Your task to perform on an android device: install app "McDonald's" Image 0: 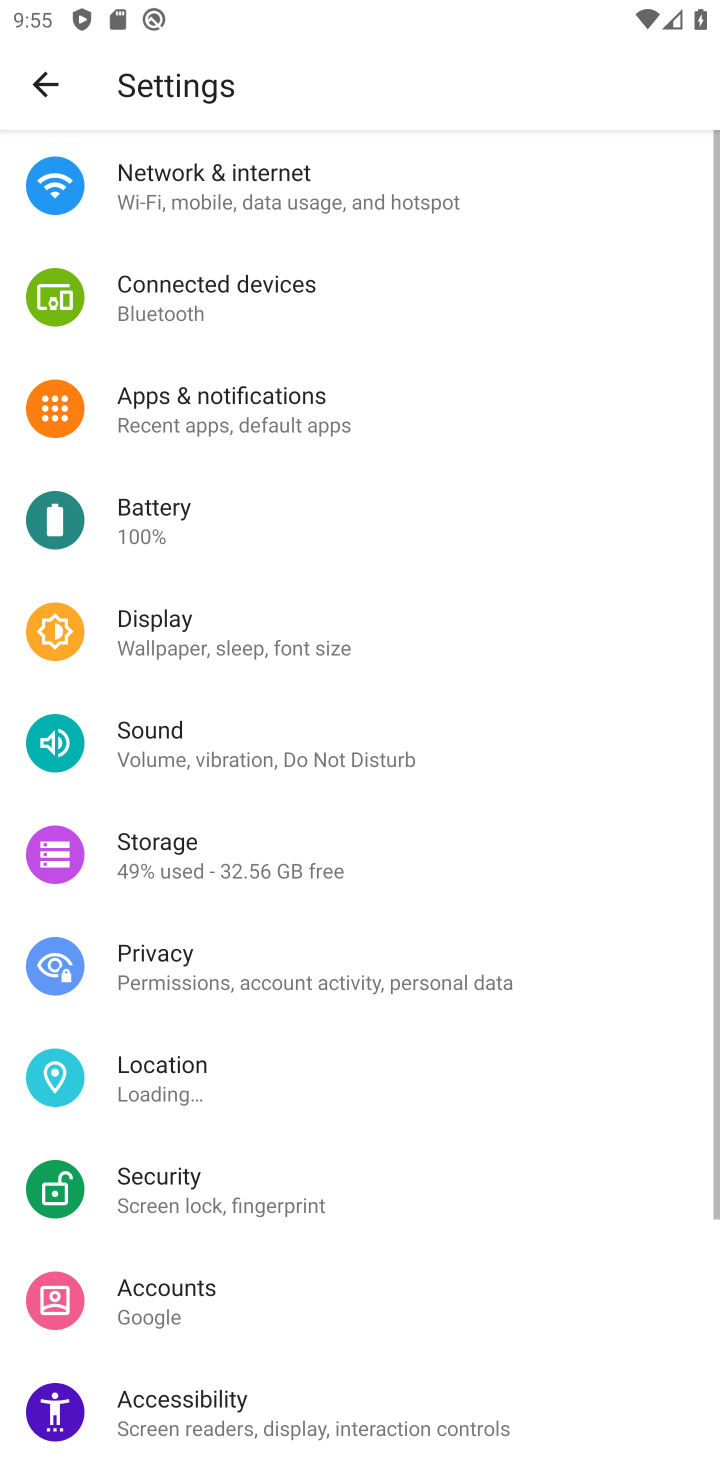
Step 0: press home button
Your task to perform on an android device: install app "McDonald's" Image 1: 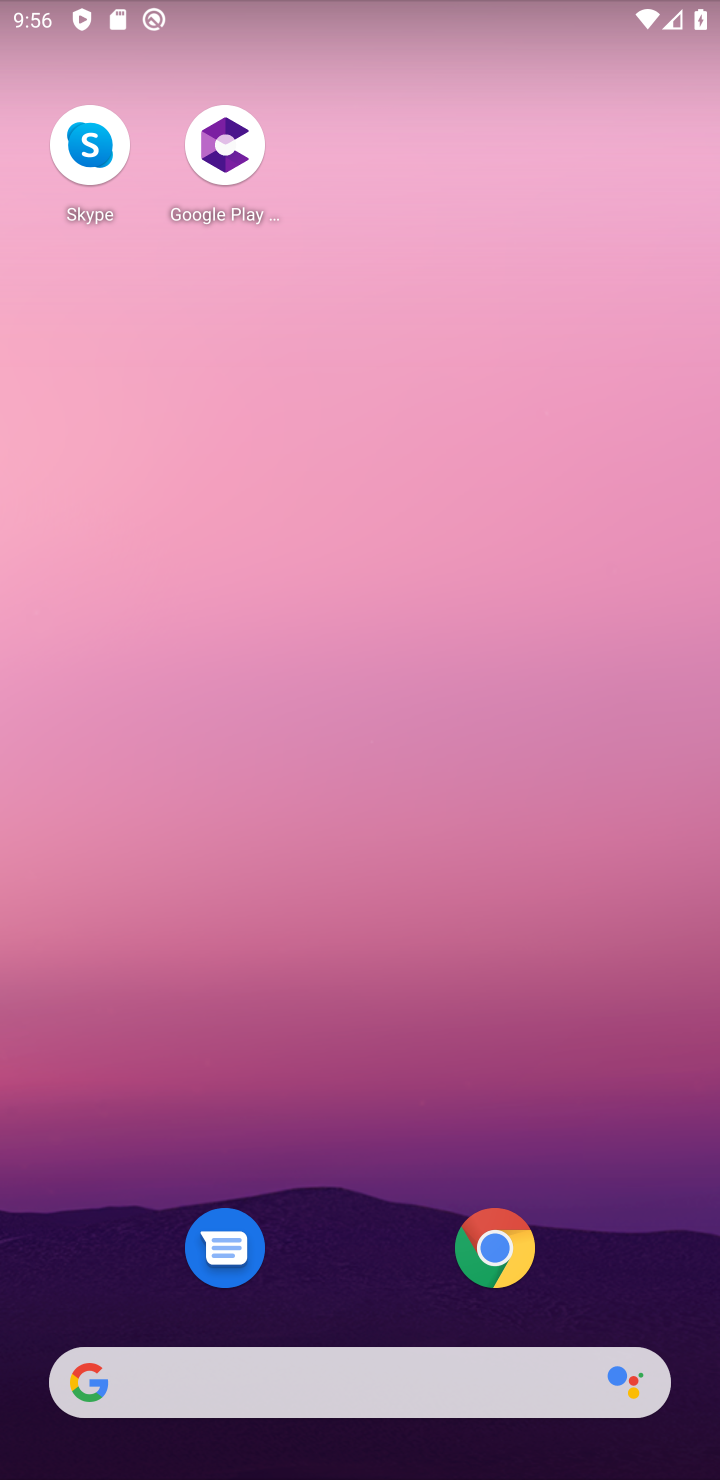
Step 1: drag from (370, 1053) to (562, 13)
Your task to perform on an android device: install app "McDonald's" Image 2: 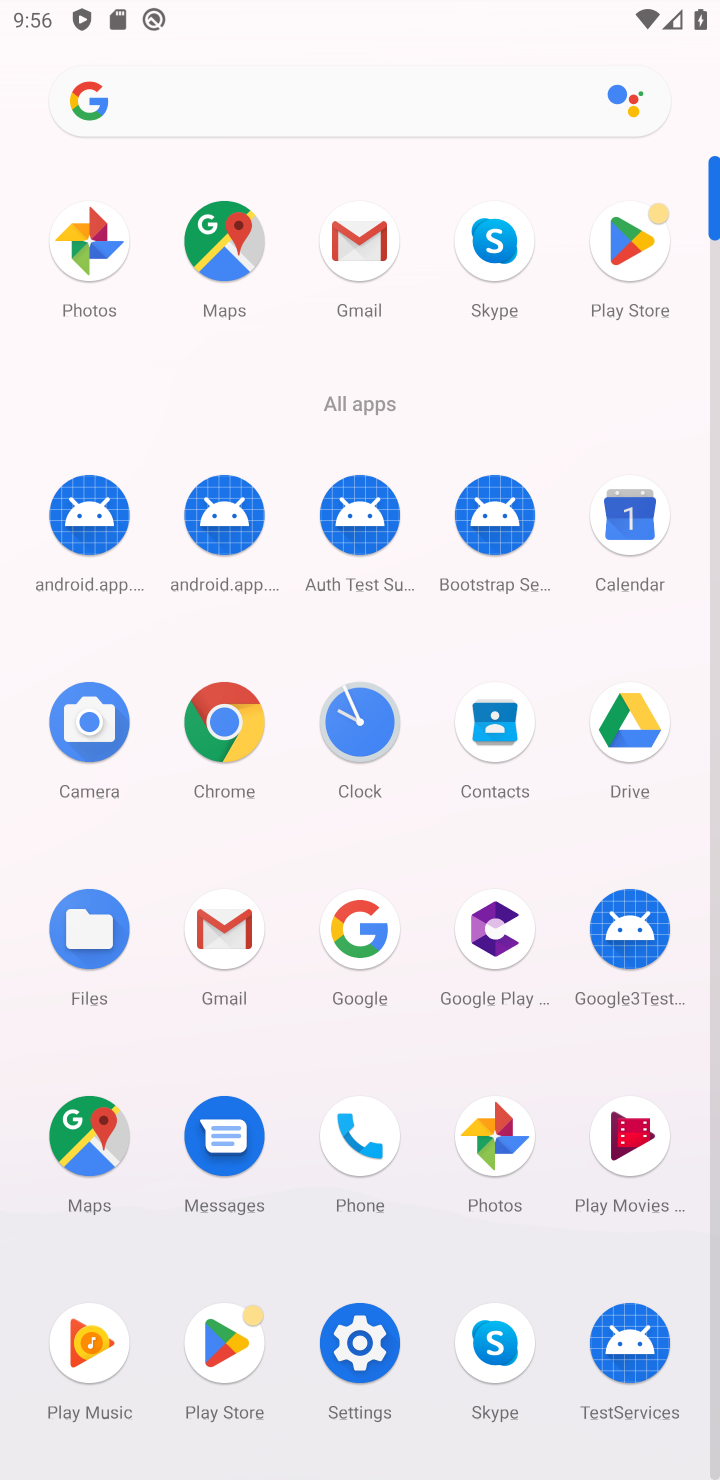
Step 2: click (622, 264)
Your task to perform on an android device: install app "McDonald's" Image 3: 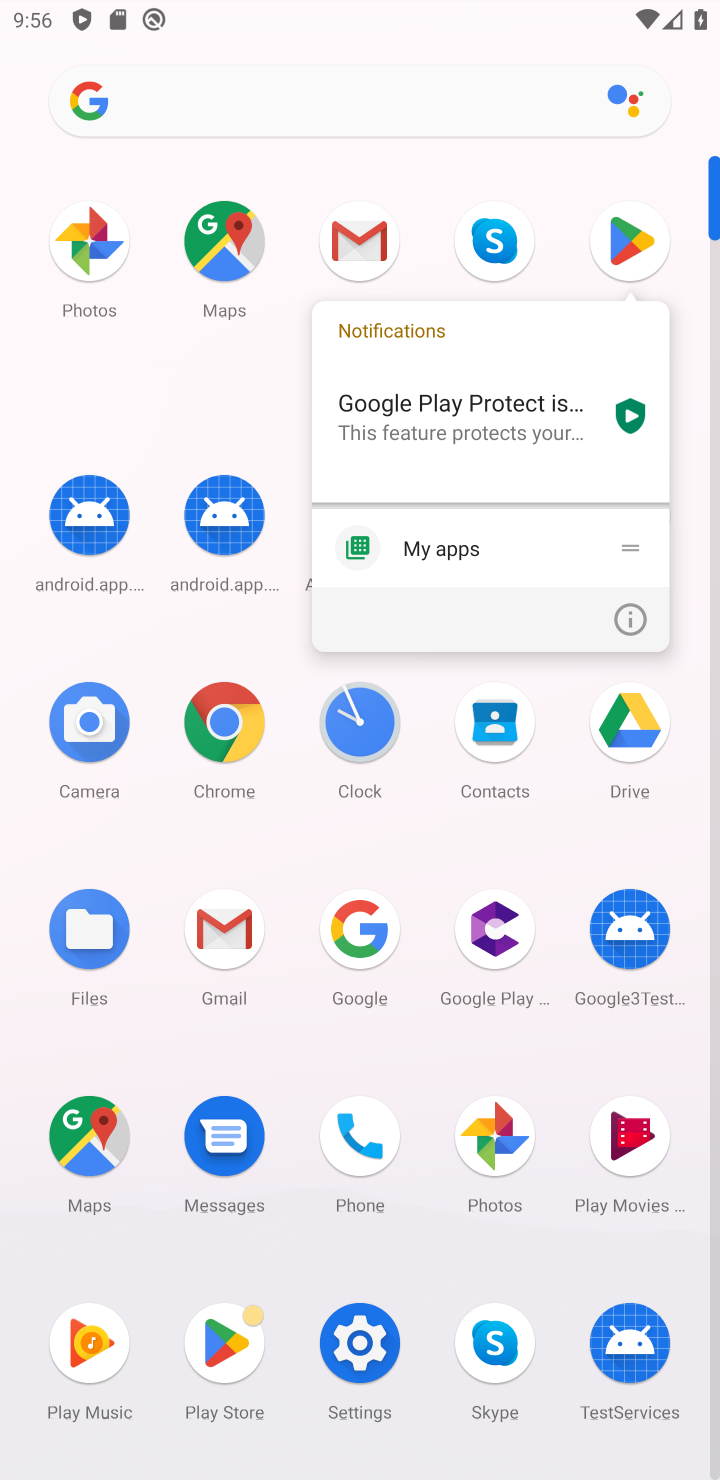
Step 3: click (241, 1347)
Your task to perform on an android device: install app "McDonald's" Image 4: 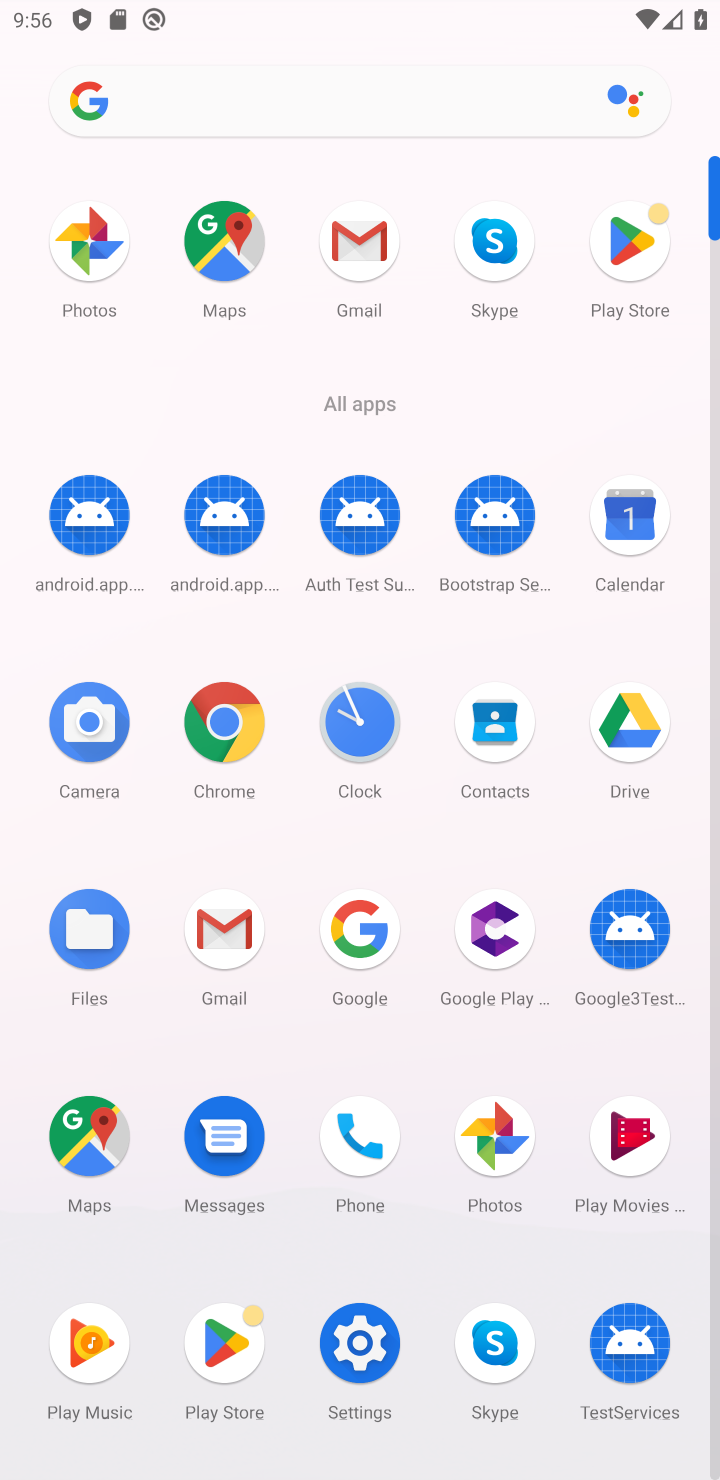
Step 4: click (198, 1326)
Your task to perform on an android device: install app "McDonald's" Image 5: 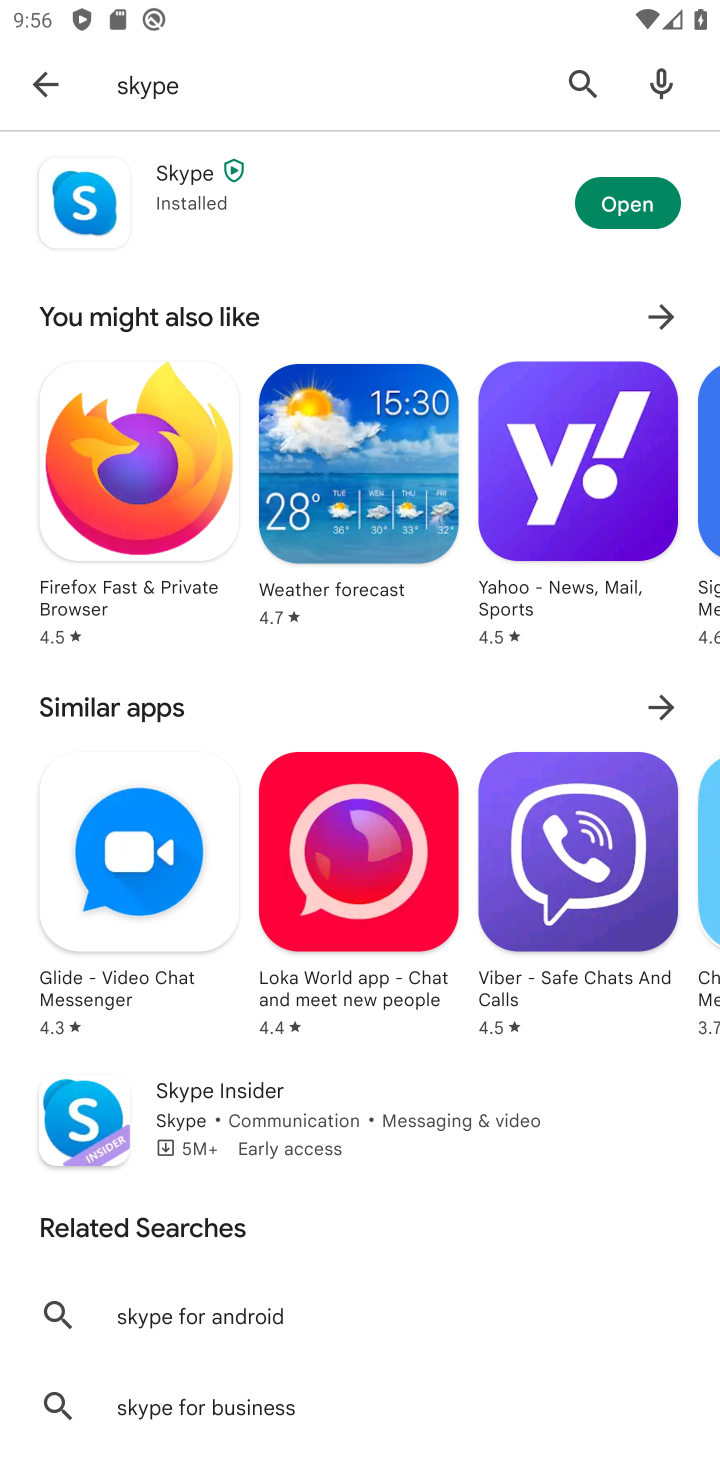
Step 5: click (383, 129)
Your task to perform on an android device: install app "McDonald's" Image 6: 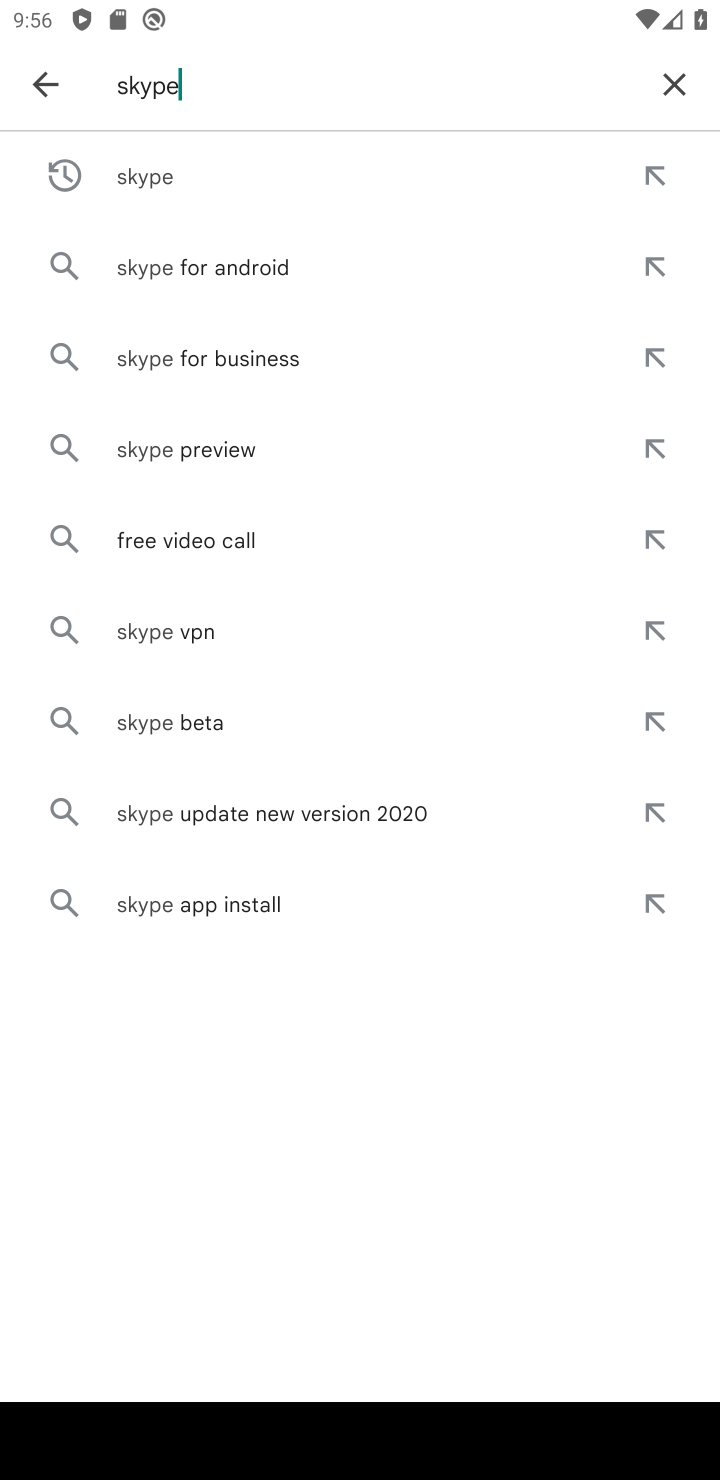
Step 6: click (664, 60)
Your task to perform on an android device: install app "McDonald's" Image 7: 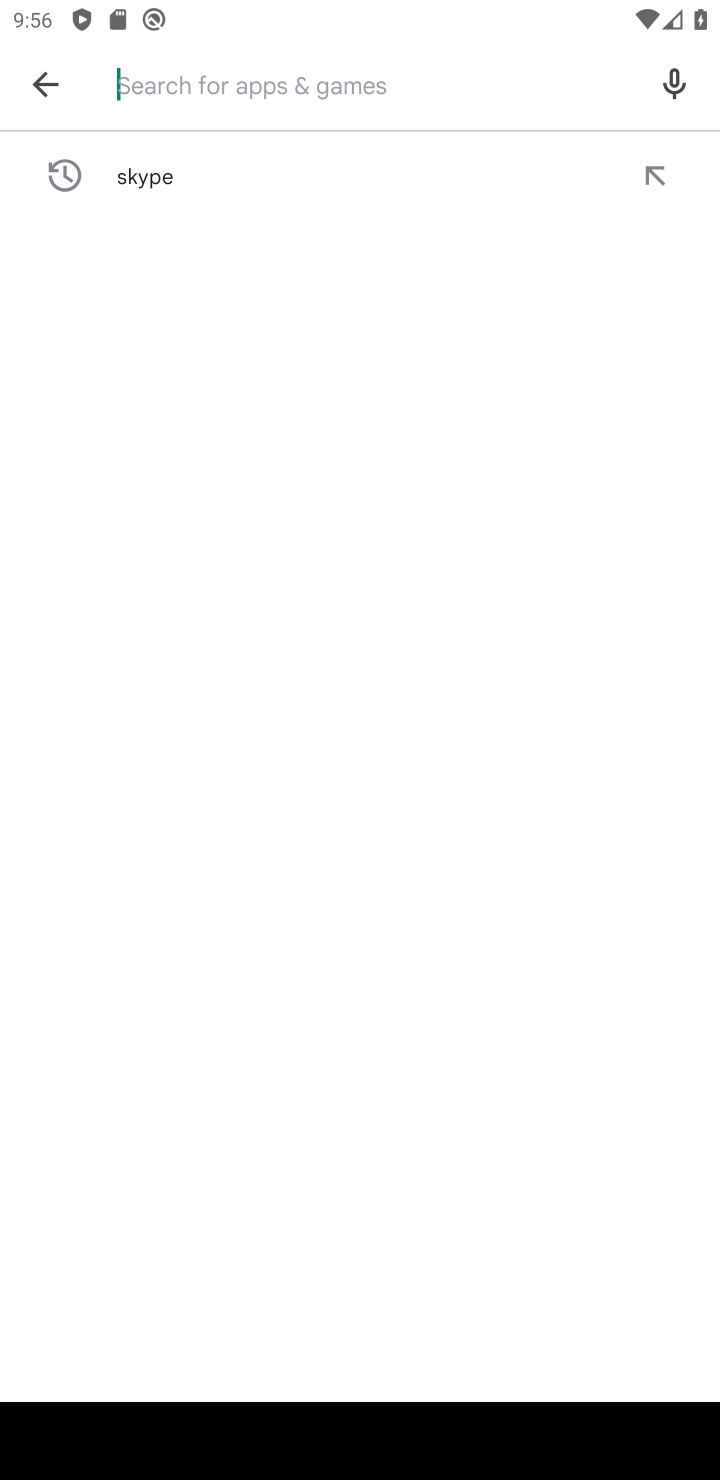
Step 7: type "McDonald's"
Your task to perform on an android device: install app "McDonald's" Image 8: 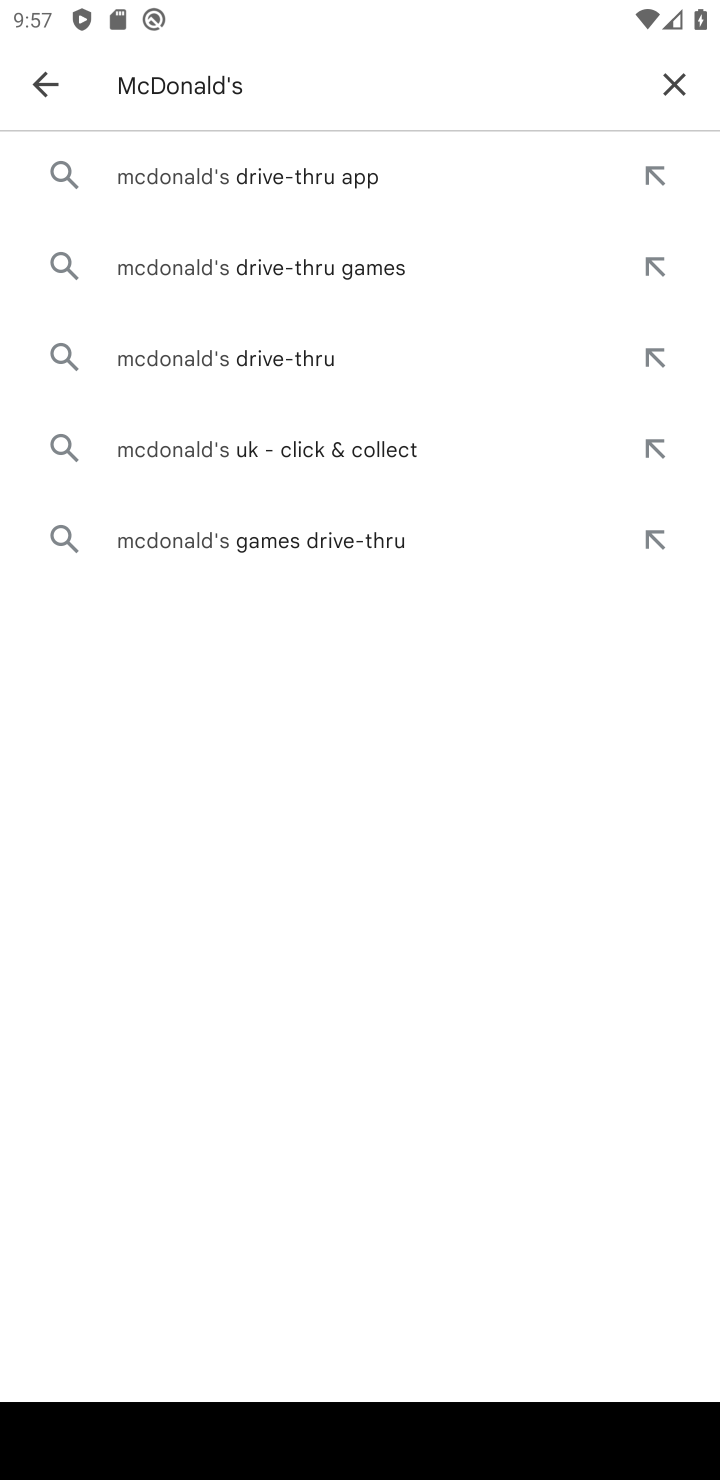
Step 8: press enter
Your task to perform on an android device: install app "McDonald's" Image 9: 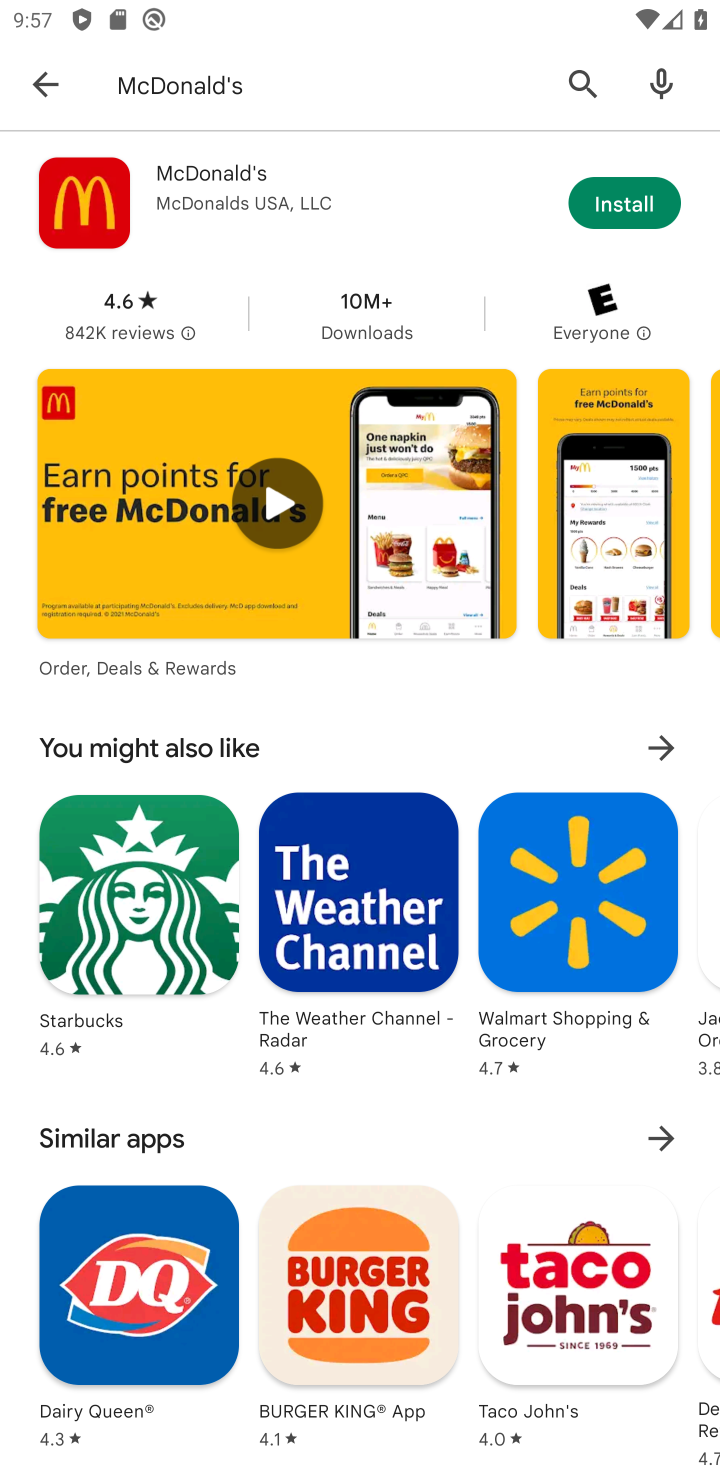
Step 9: click (616, 221)
Your task to perform on an android device: install app "McDonald's" Image 10: 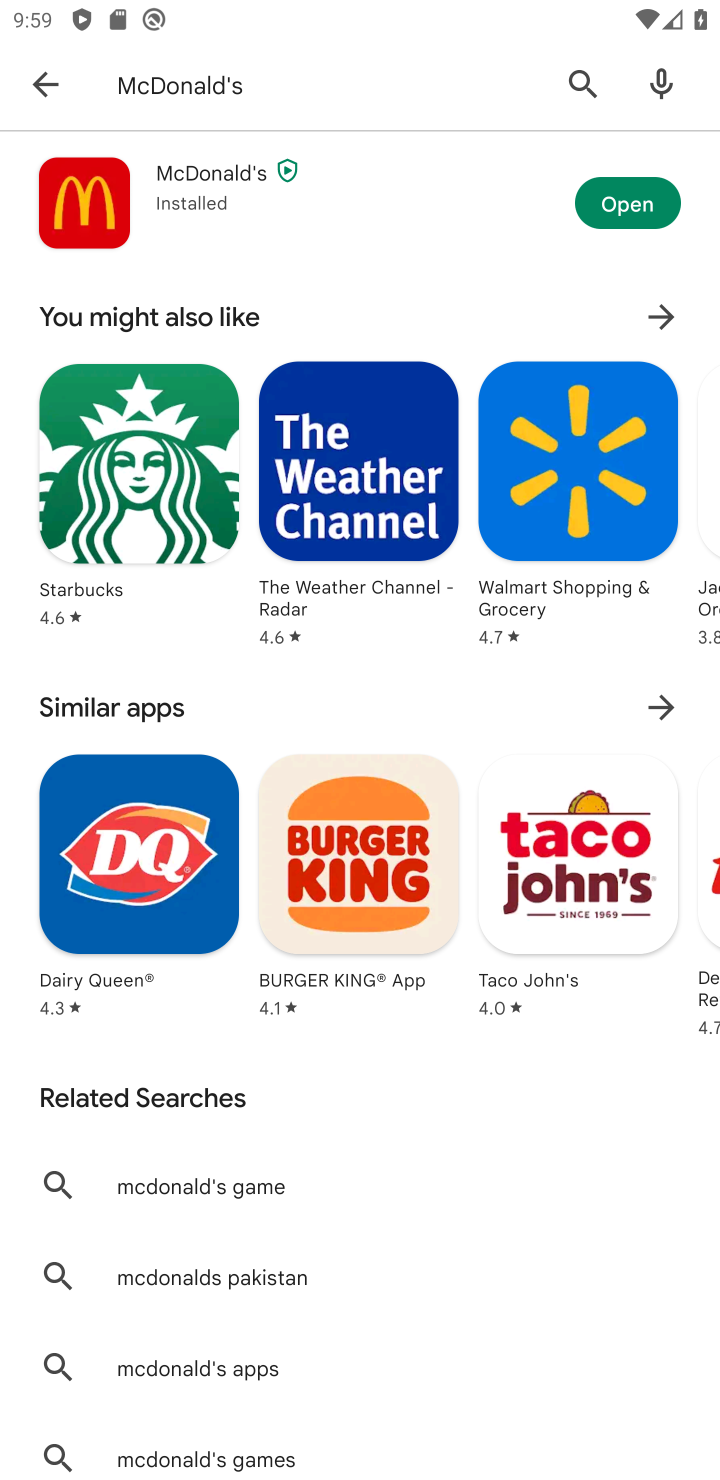
Step 10: task complete